Your task to perform on an android device: Do I have any events this weekend? Image 0: 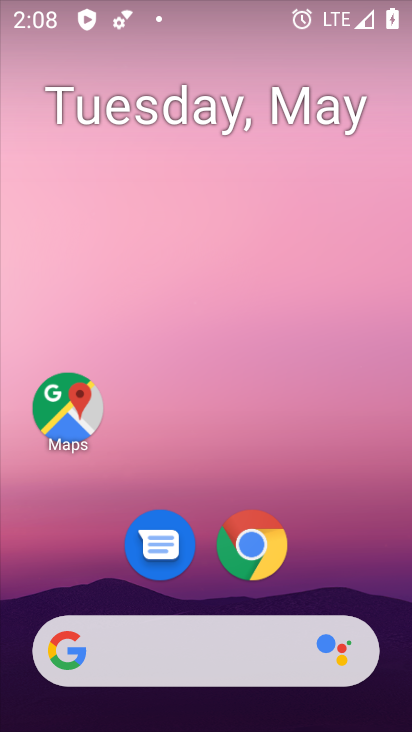
Step 0: drag from (305, 498) to (250, 39)
Your task to perform on an android device: Do I have any events this weekend? Image 1: 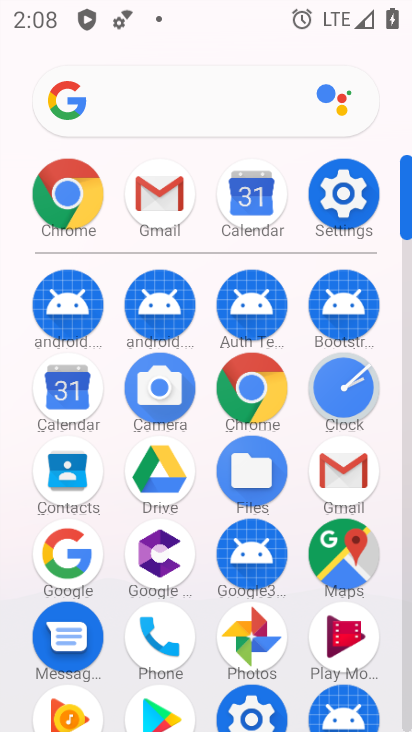
Step 1: drag from (17, 529) to (38, 188)
Your task to perform on an android device: Do I have any events this weekend? Image 2: 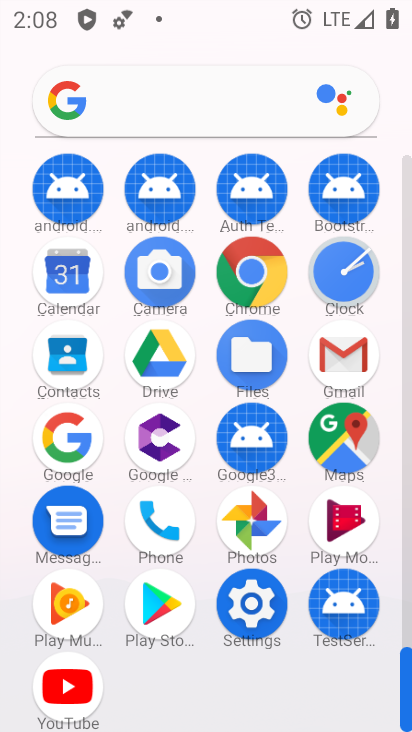
Step 2: click (67, 269)
Your task to perform on an android device: Do I have any events this weekend? Image 3: 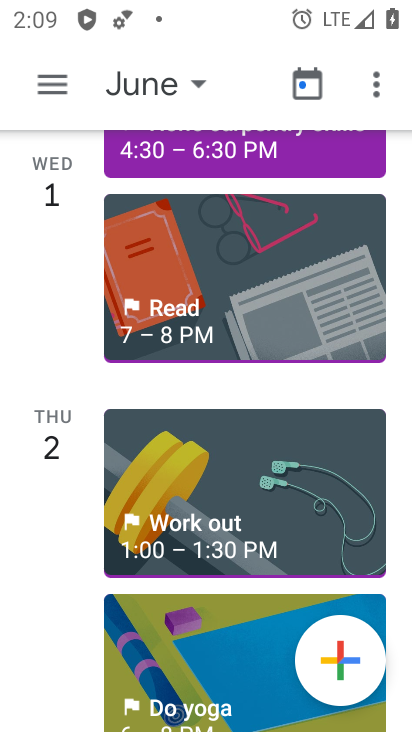
Step 3: click (307, 75)
Your task to perform on an android device: Do I have any events this weekend? Image 4: 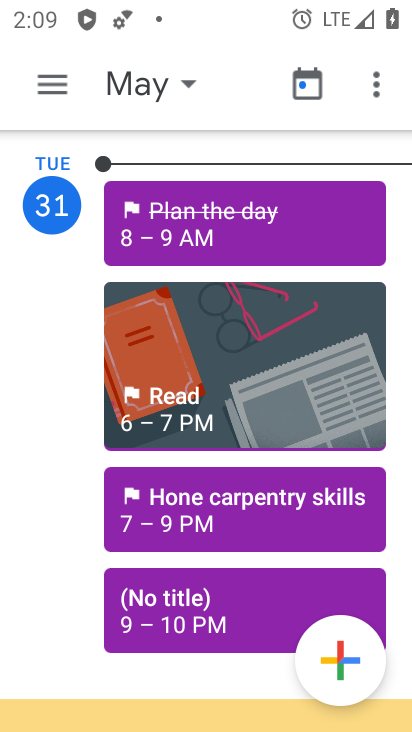
Step 4: click (43, 86)
Your task to perform on an android device: Do I have any events this weekend? Image 5: 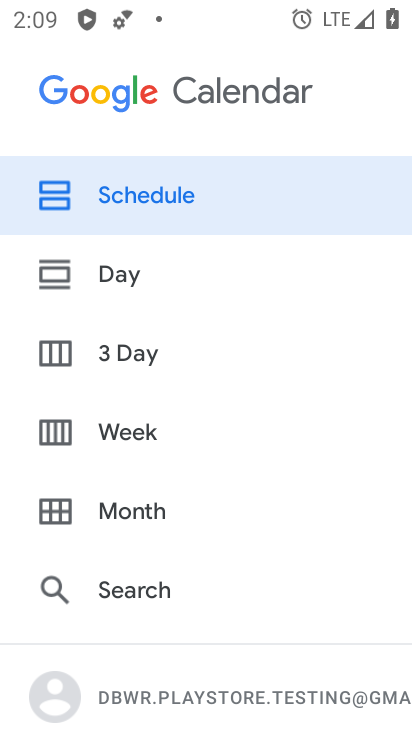
Step 5: click (163, 427)
Your task to perform on an android device: Do I have any events this weekend? Image 6: 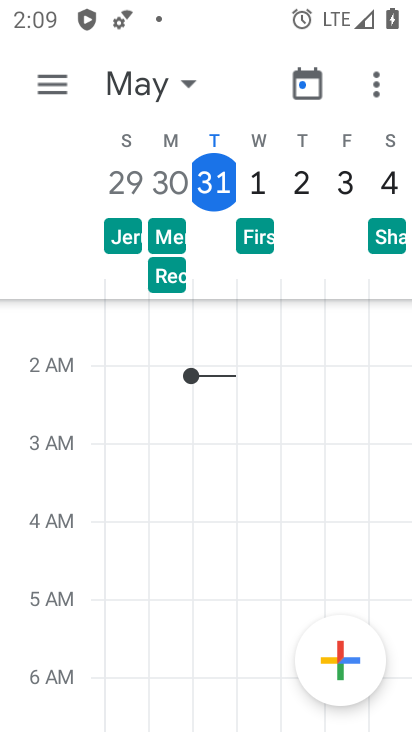
Step 6: task complete